Your task to perform on an android device: What is the news today? Image 0: 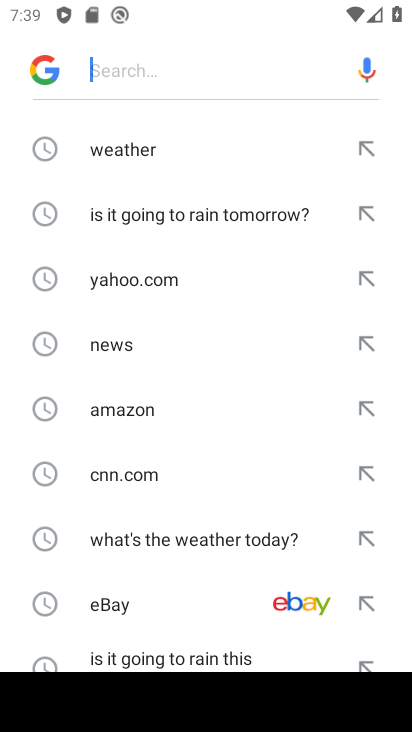
Step 0: type "what's the news today"
Your task to perform on an android device: What is the news today? Image 1: 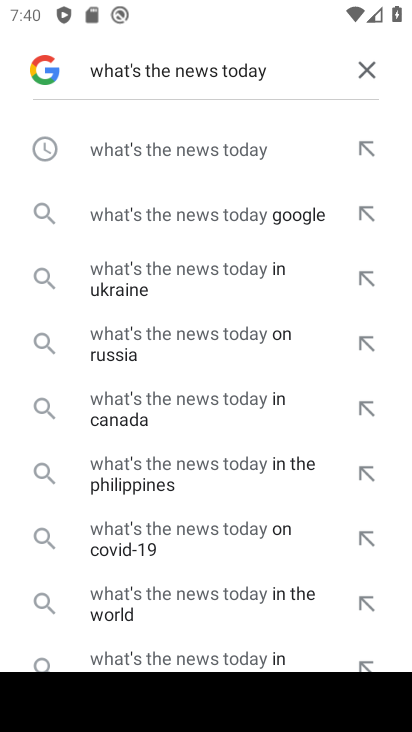
Step 1: click (284, 153)
Your task to perform on an android device: What is the news today? Image 2: 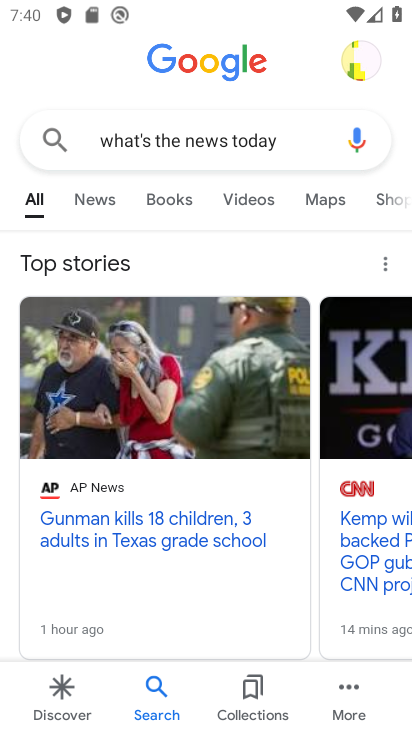
Step 2: task complete